Your task to perform on an android device: search for starred emails in the gmail app Image 0: 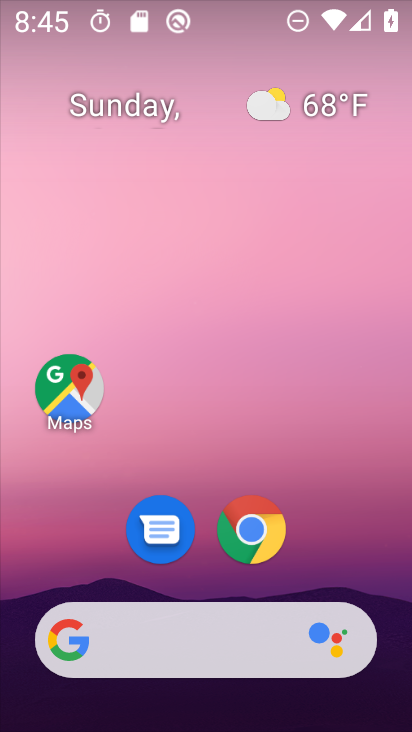
Step 0: press home button
Your task to perform on an android device: search for starred emails in the gmail app Image 1: 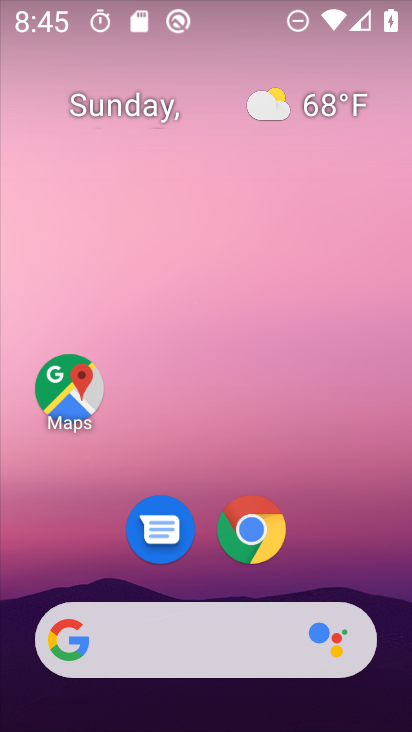
Step 1: drag from (210, 577) to (216, 0)
Your task to perform on an android device: search for starred emails in the gmail app Image 2: 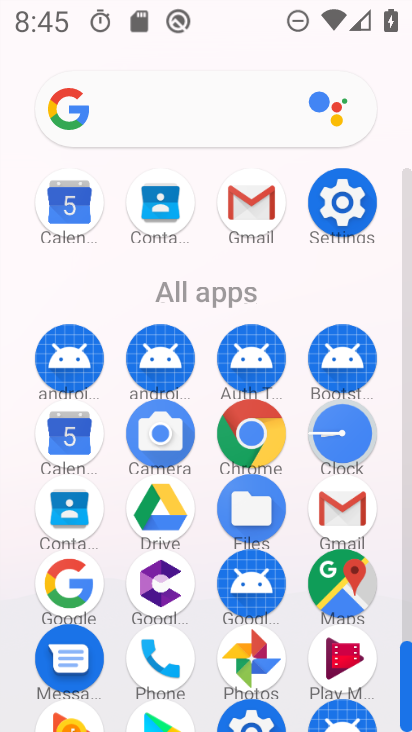
Step 2: click (248, 190)
Your task to perform on an android device: search for starred emails in the gmail app Image 3: 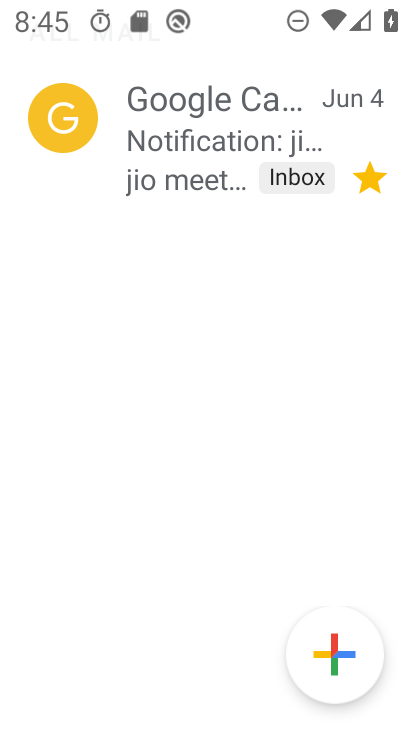
Step 3: drag from (138, 260) to (167, 665)
Your task to perform on an android device: search for starred emails in the gmail app Image 4: 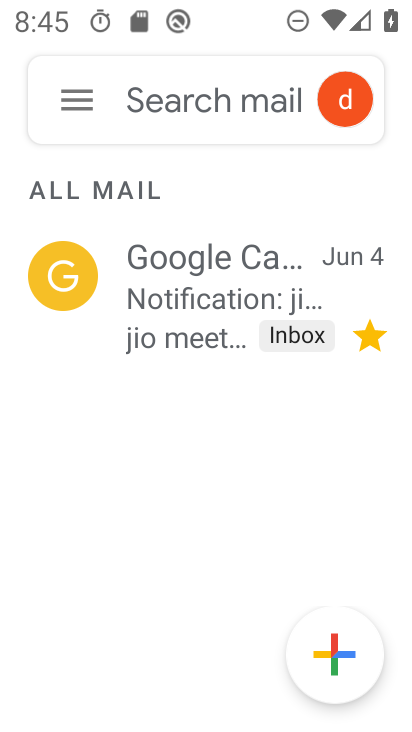
Step 4: click (73, 100)
Your task to perform on an android device: search for starred emails in the gmail app Image 5: 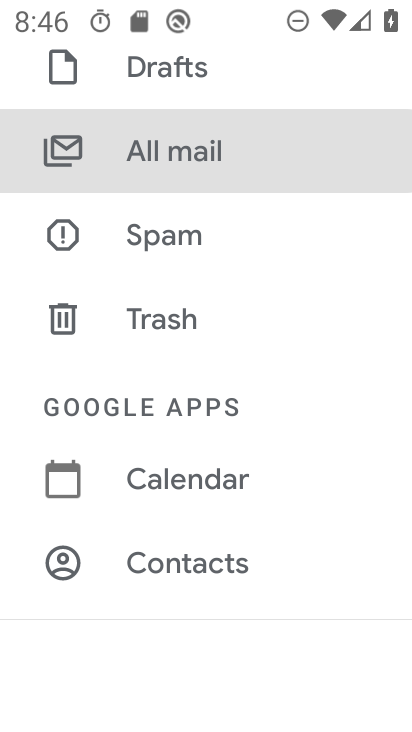
Step 5: drag from (109, 97) to (123, 645)
Your task to perform on an android device: search for starred emails in the gmail app Image 6: 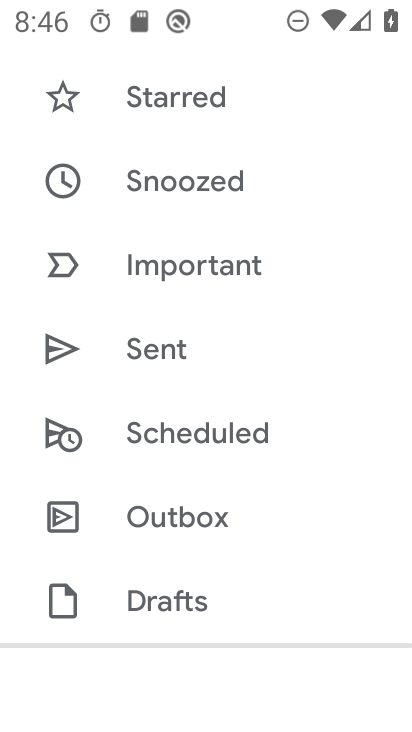
Step 6: click (108, 99)
Your task to perform on an android device: search for starred emails in the gmail app Image 7: 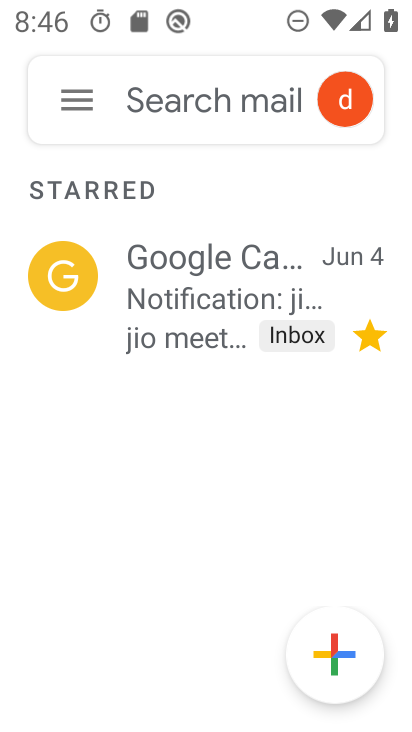
Step 7: task complete